Your task to perform on an android device: Open ESPN.com Image 0: 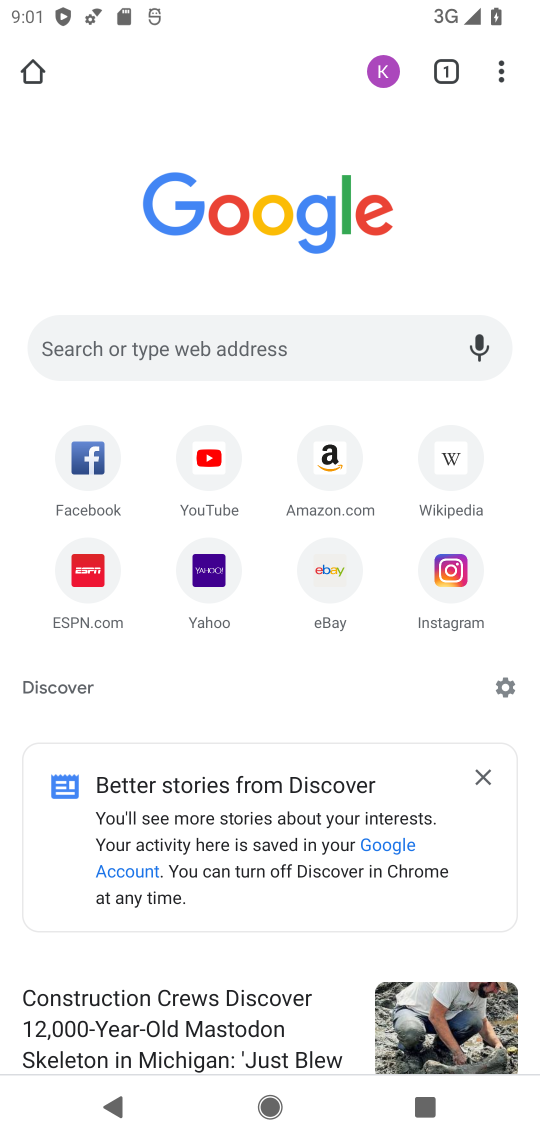
Step 0: click (97, 570)
Your task to perform on an android device: Open ESPN.com Image 1: 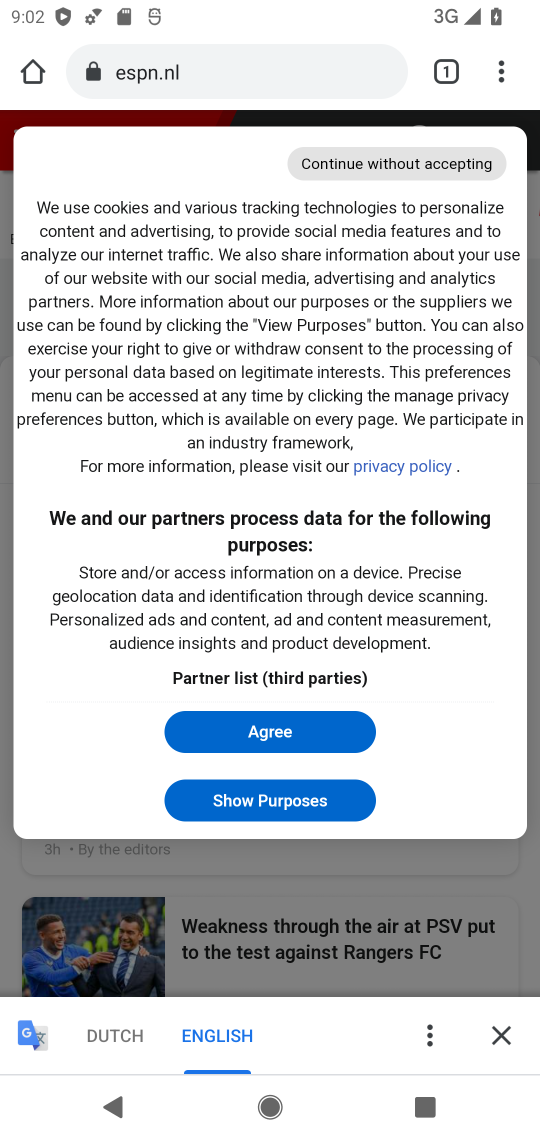
Step 1: task complete